Your task to perform on an android device: turn pop-ups on in chrome Image 0: 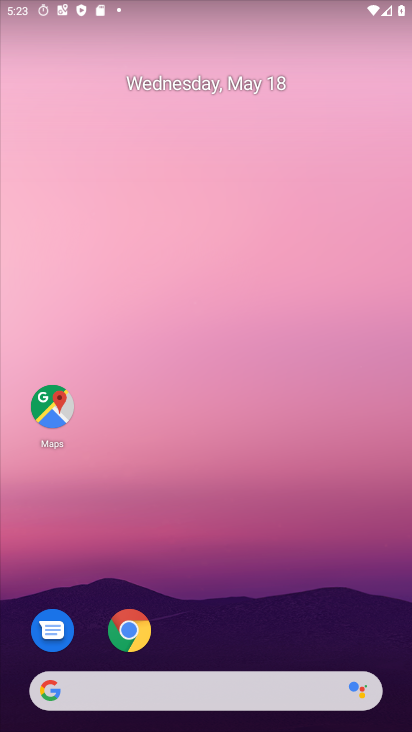
Step 0: click (135, 632)
Your task to perform on an android device: turn pop-ups on in chrome Image 1: 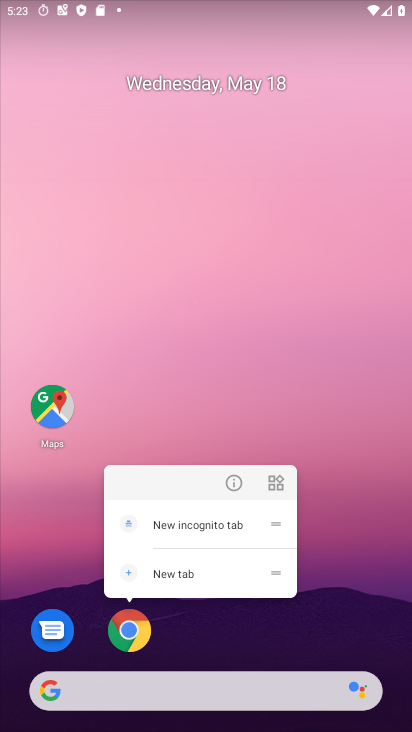
Step 1: click (134, 631)
Your task to perform on an android device: turn pop-ups on in chrome Image 2: 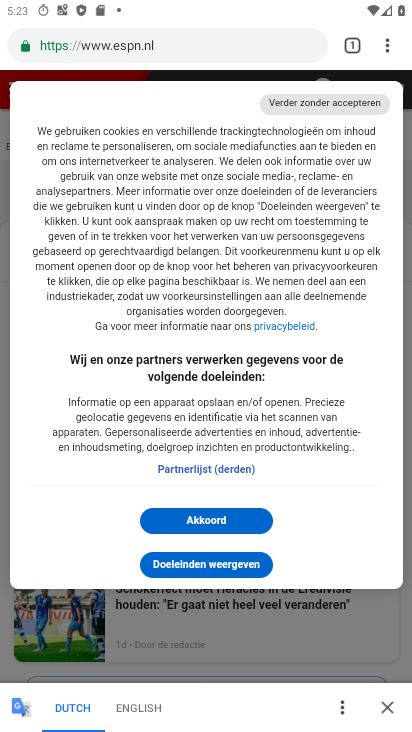
Step 2: click (391, 46)
Your task to perform on an android device: turn pop-ups on in chrome Image 3: 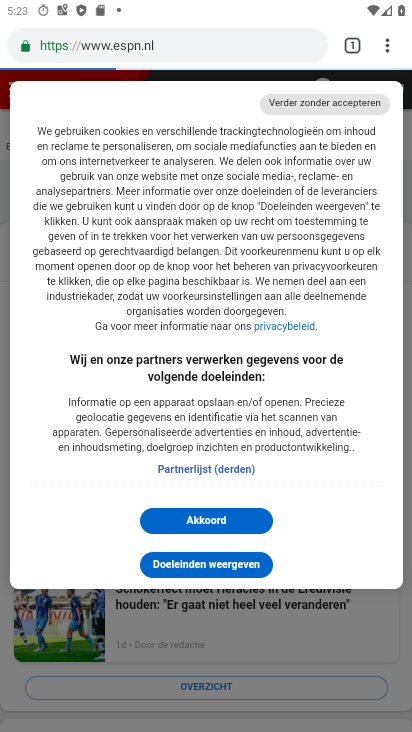
Step 3: click (379, 47)
Your task to perform on an android device: turn pop-ups on in chrome Image 4: 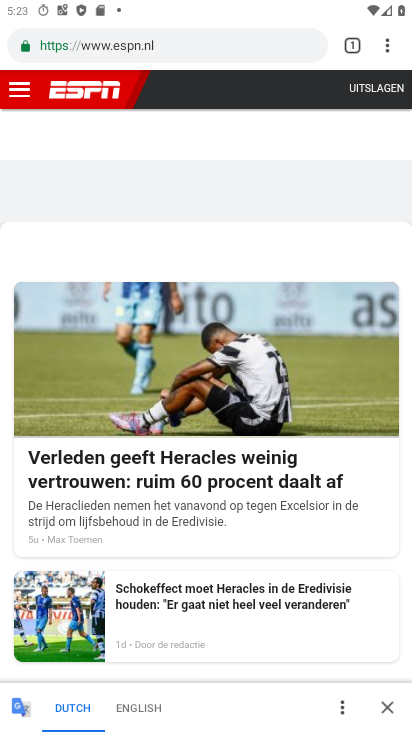
Step 4: click (387, 45)
Your task to perform on an android device: turn pop-ups on in chrome Image 5: 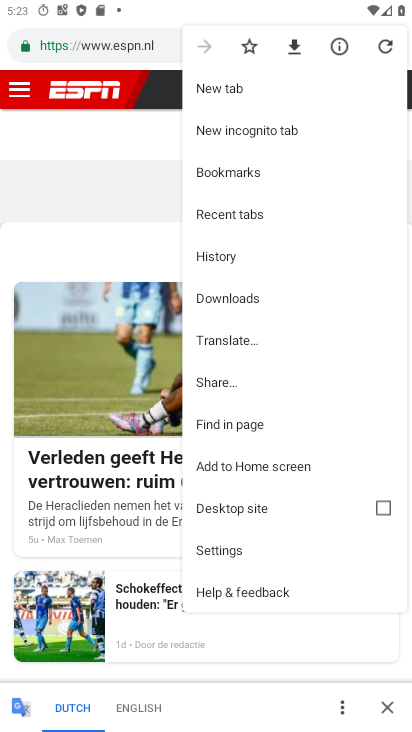
Step 5: click (227, 553)
Your task to perform on an android device: turn pop-ups on in chrome Image 6: 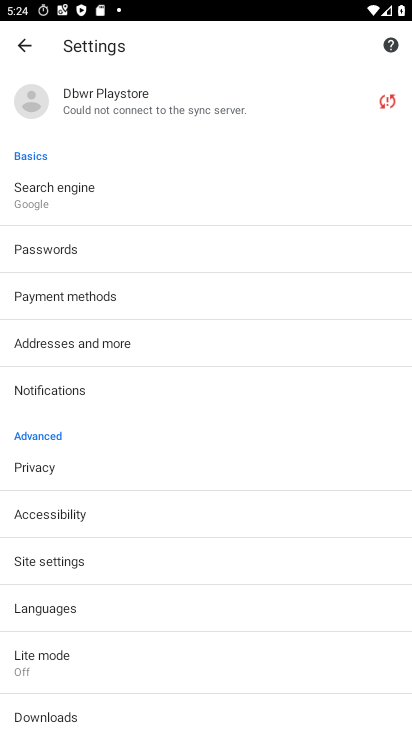
Step 6: click (66, 563)
Your task to perform on an android device: turn pop-ups on in chrome Image 7: 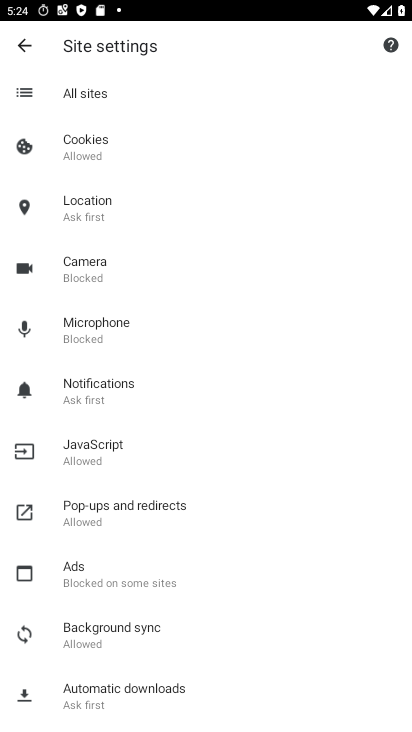
Step 7: click (131, 494)
Your task to perform on an android device: turn pop-ups on in chrome Image 8: 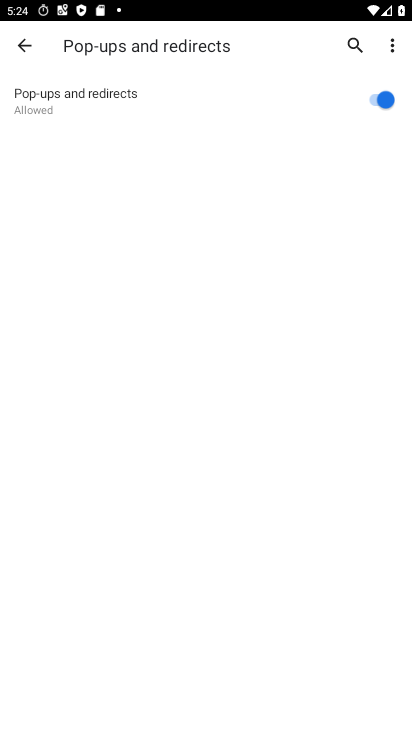
Step 8: task complete